Your task to perform on an android device: Open CNN.com Image 0: 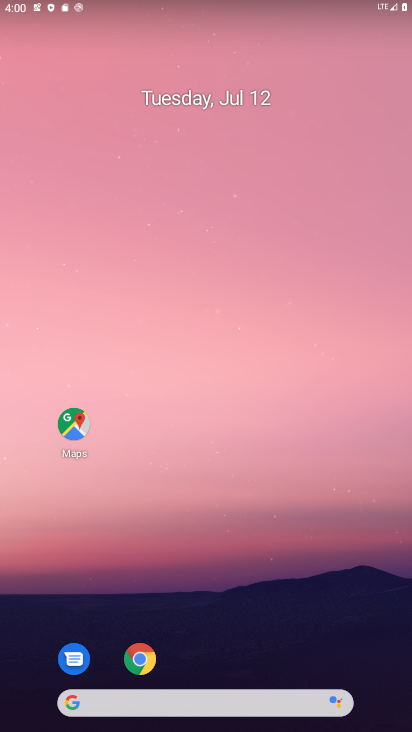
Step 0: drag from (226, 195) to (226, 131)
Your task to perform on an android device: Open CNN.com Image 1: 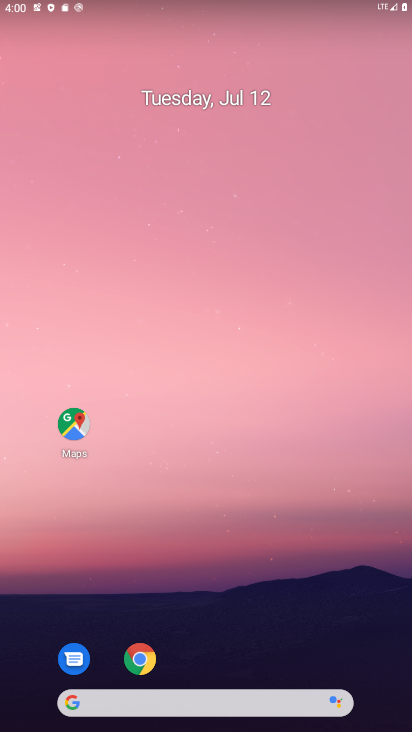
Step 1: click (145, 662)
Your task to perform on an android device: Open CNN.com Image 2: 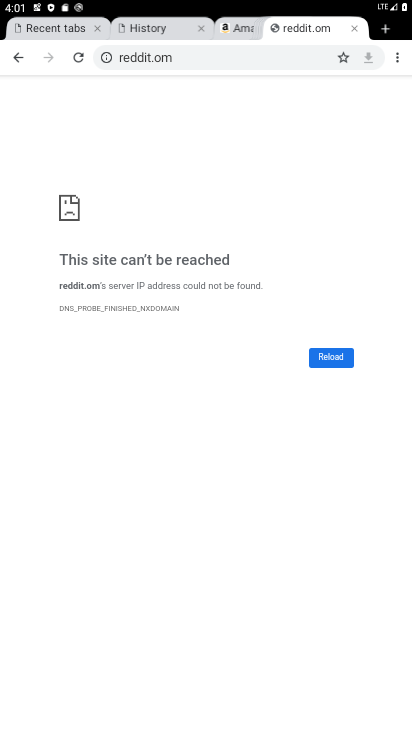
Step 2: task complete